Your task to perform on an android device: Turn on the flashlight Image 0: 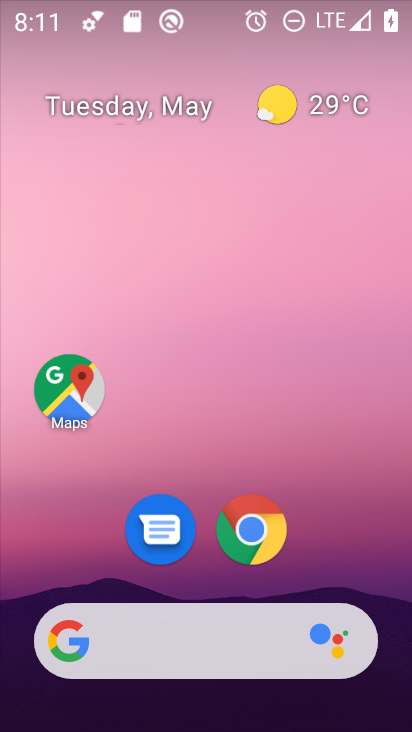
Step 0: drag from (399, 646) to (233, 119)
Your task to perform on an android device: Turn on the flashlight Image 1: 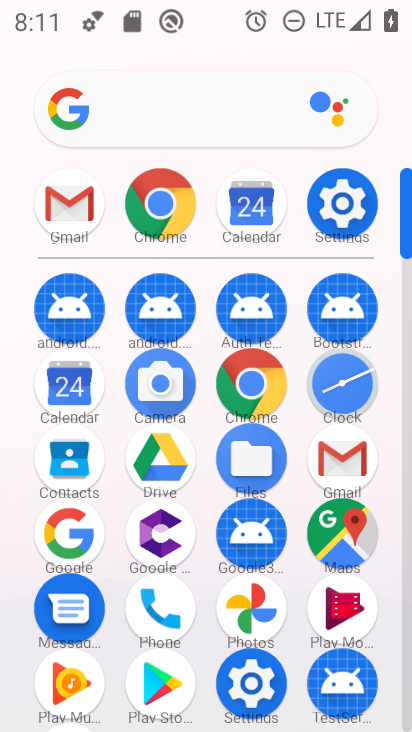
Step 1: click (346, 219)
Your task to perform on an android device: Turn on the flashlight Image 2: 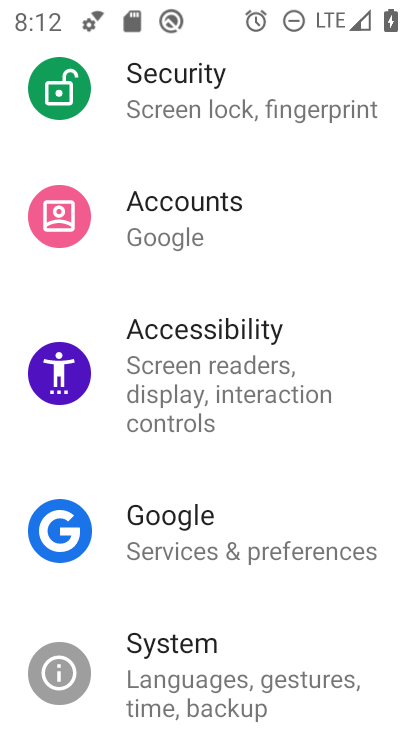
Step 2: task complete